Your task to perform on an android device: Empty the shopping cart on ebay. Add bose soundsport free to the cart on ebay Image 0: 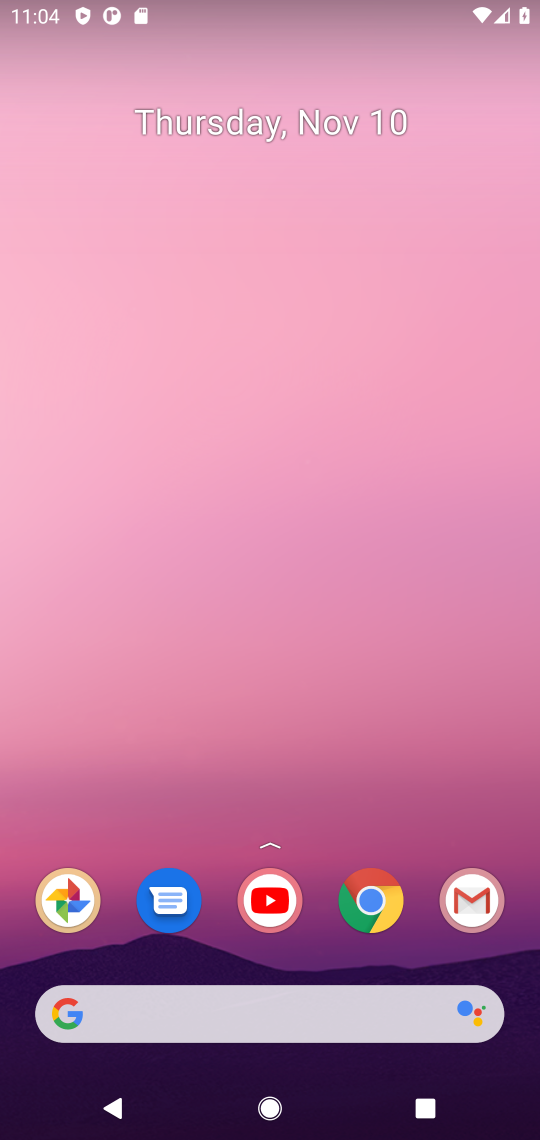
Step 0: click (370, 899)
Your task to perform on an android device: Empty the shopping cart on ebay. Add bose soundsport free to the cart on ebay Image 1: 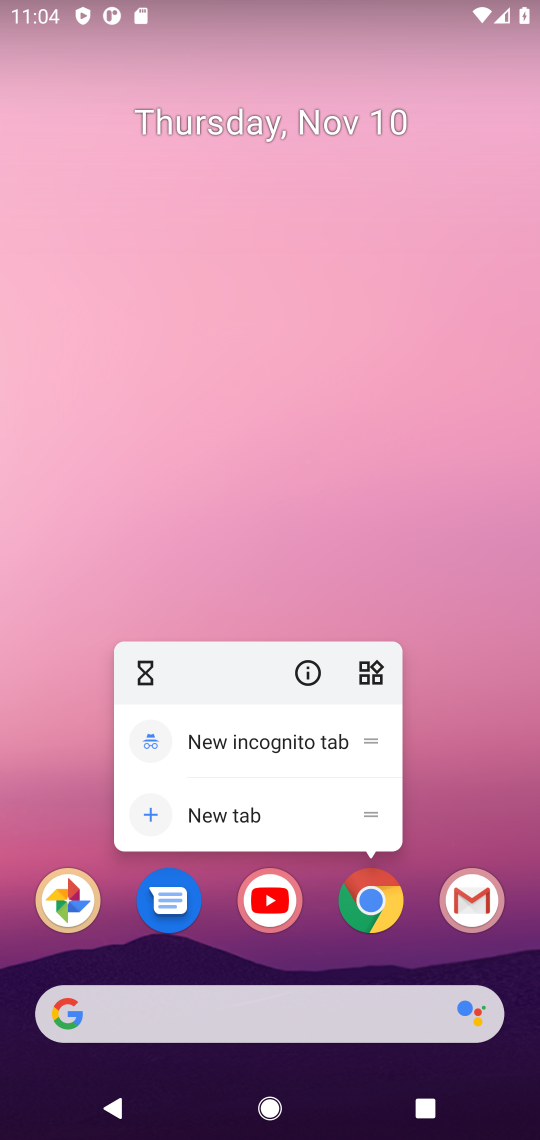
Step 1: click (371, 898)
Your task to perform on an android device: Empty the shopping cart on ebay. Add bose soundsport free to the cart on ebay Image 2: 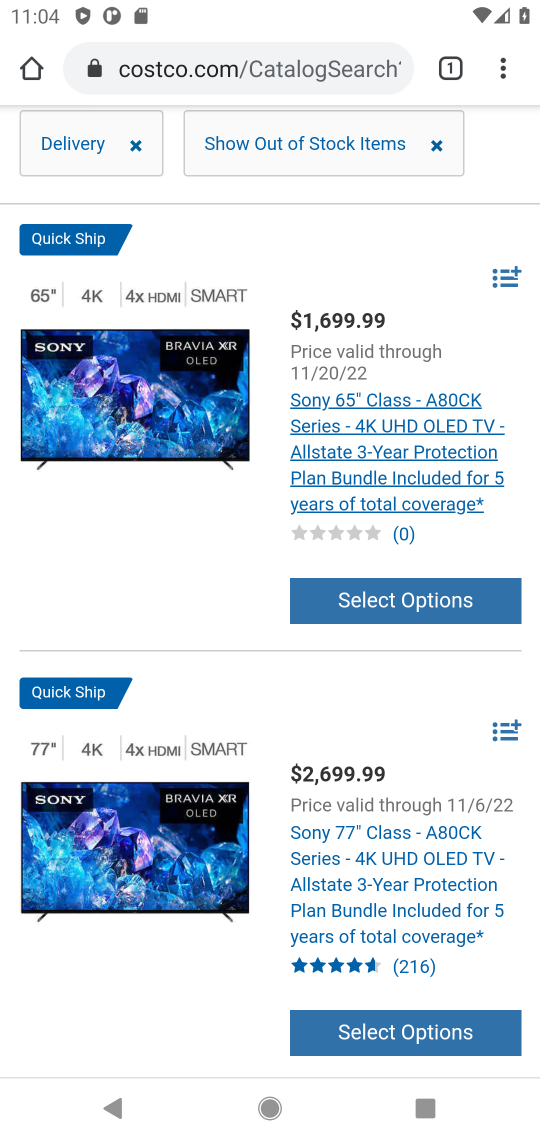
Step 2: click (327, 61)
Your task to perform on an android device: Empty the shopping cart on ebay. Add bose soundsport free to the cart on ebay Image 3: 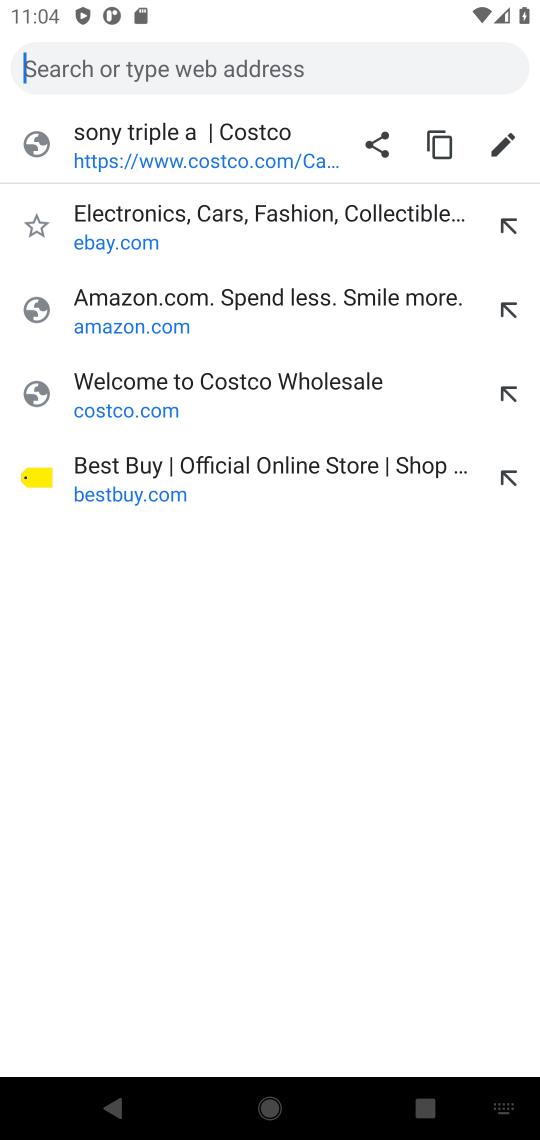
Step 3: click (117, 237)
Your task to perform on an android device: Empty the shopping cart on ebay. Add bose soundsport free to the cart on ebay Image 4: 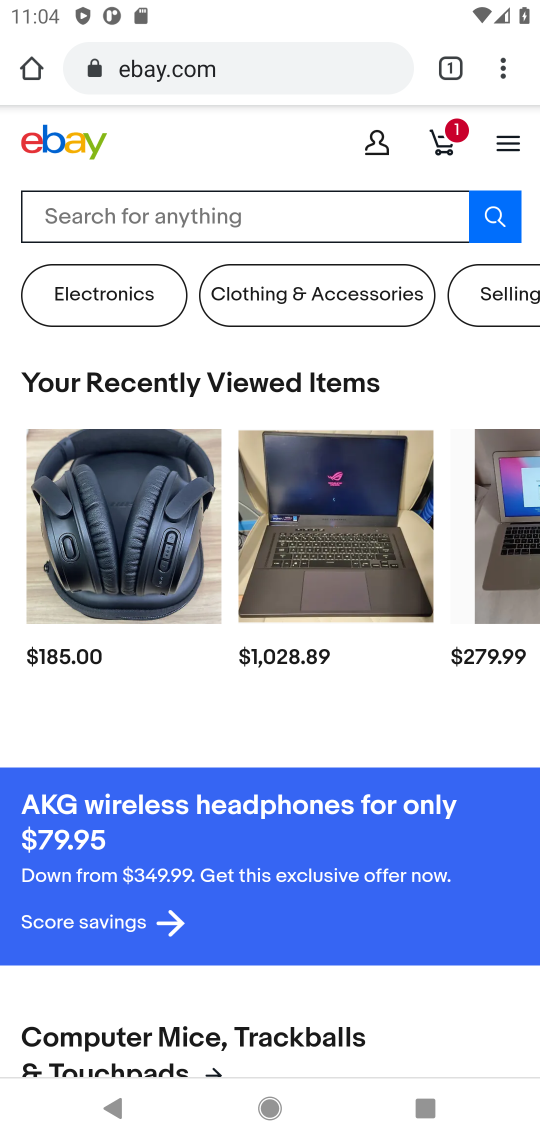
Step 4: click (152, 215)
Your task to perform on an android device: Empty the shopping cart on ebay. Add bose soundsport free to the cart on ebay Image 5: 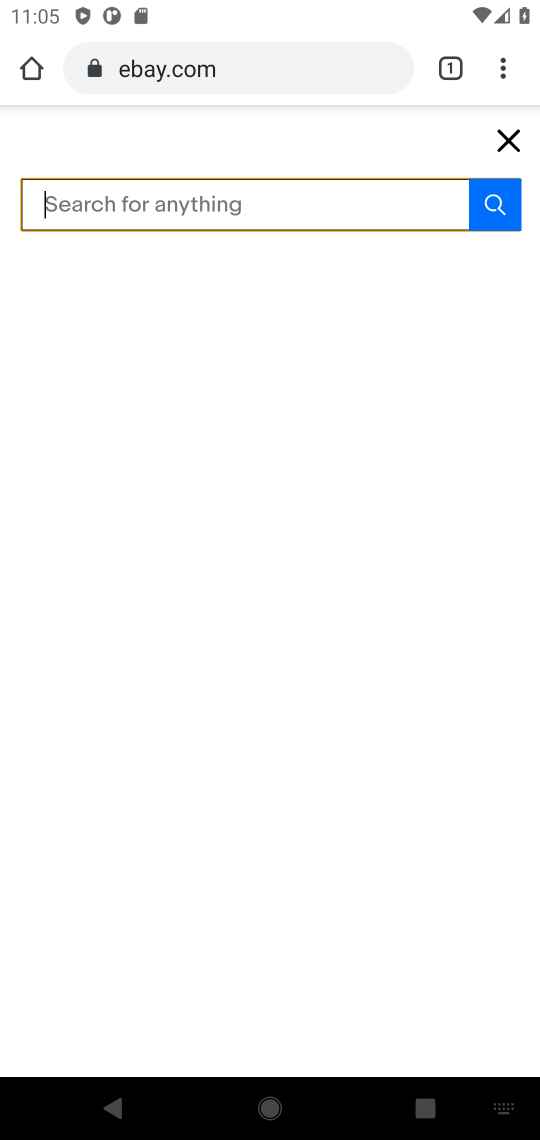
Step 5: type "bose soundsport free"
Your task to perform on an android device: Empty the shopping cart on ebay. Add bose soundsport free to the cart on ebay Image 6: 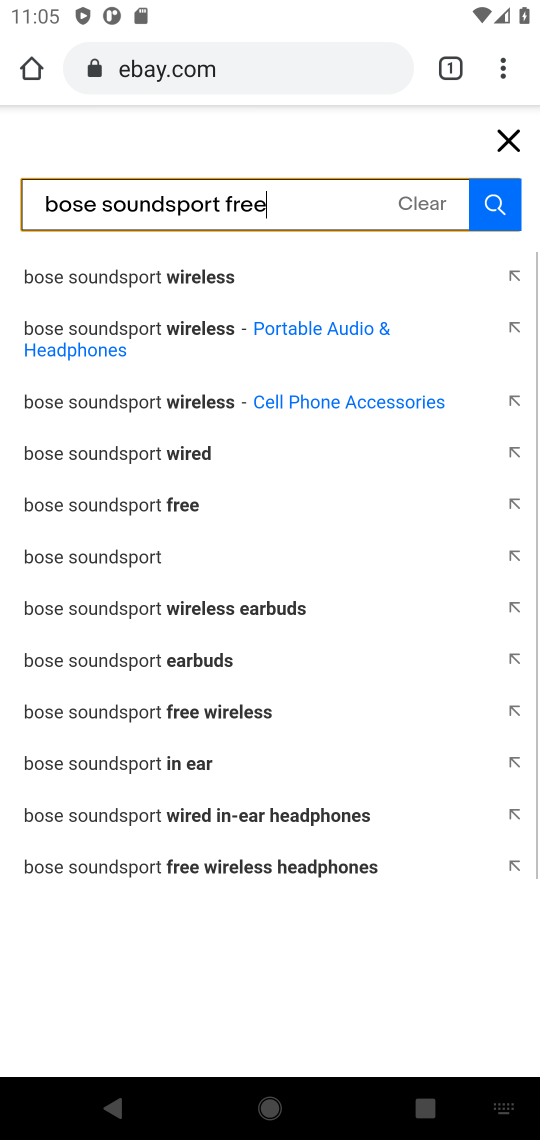
Step 6: press enter
Your task to perform on an android device: Empty the shopping cart on ebay. Add bose soundsport free to the cart on ebay Image 7: 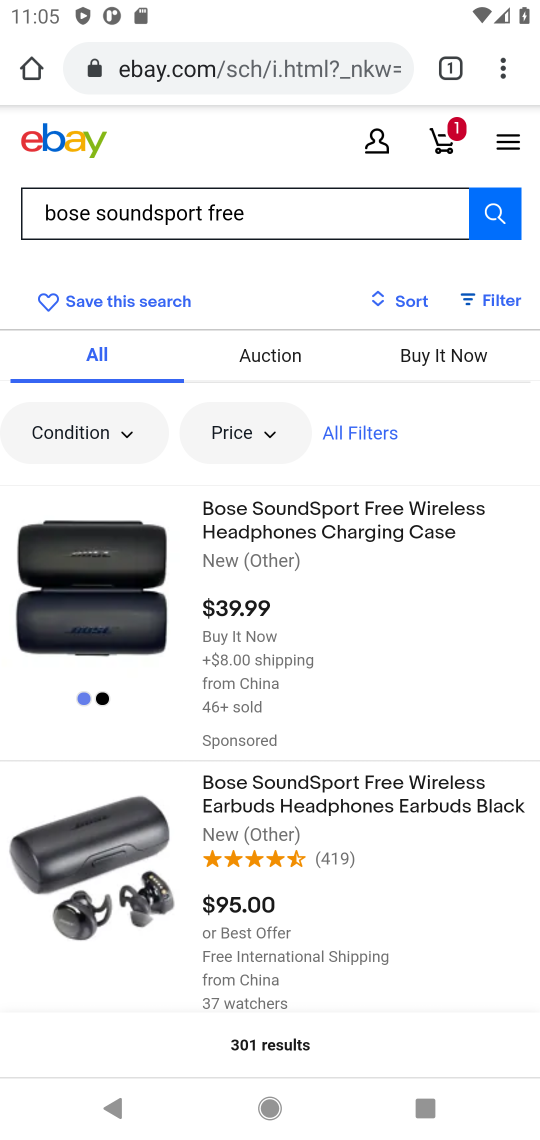
Step 7: click (305, 548)
Your task to perform on an android device: Empty the shopping cart on ebay. Add bose soundsport free to the cart on ebay Image 8: 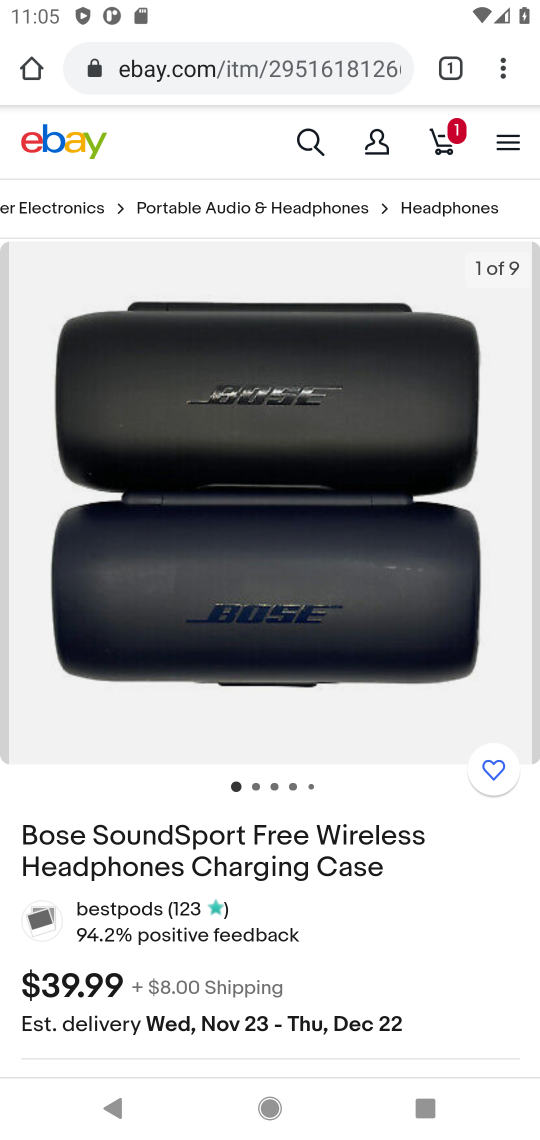
Step 8: drag from (373, 981) to (533, 257)
Your task to perform on an android device: Empty the shopping cart on ebay. Add bose soundsport free to the cart on ebay Image 9: 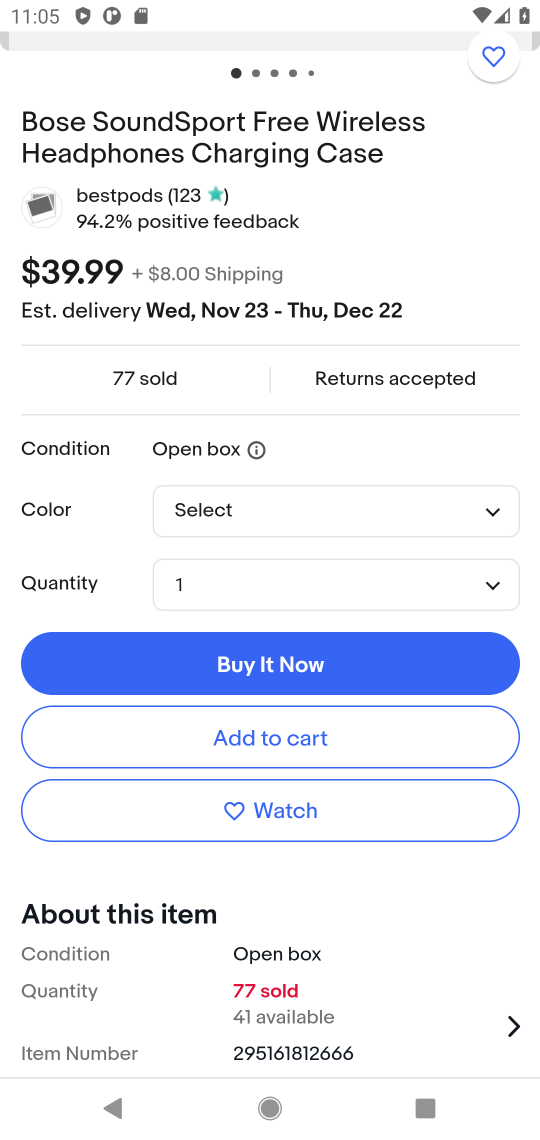
Step 9: click (262, 730)
Your task to perform on an android device: Empty the shopping cart on ebay. Add bose soundsport free to the cart on ebay Image 10: 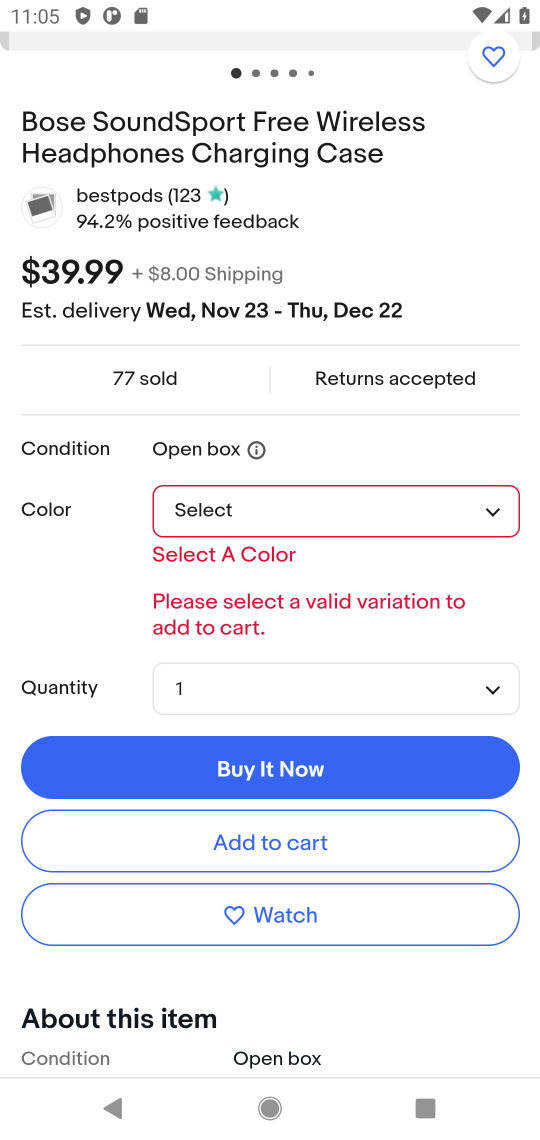
Step 10: click (485, 504)
Your task to perform on an android device: Empty the shopping cart on ebay. Add bose soundsport free to the cart on ebay Image 11: 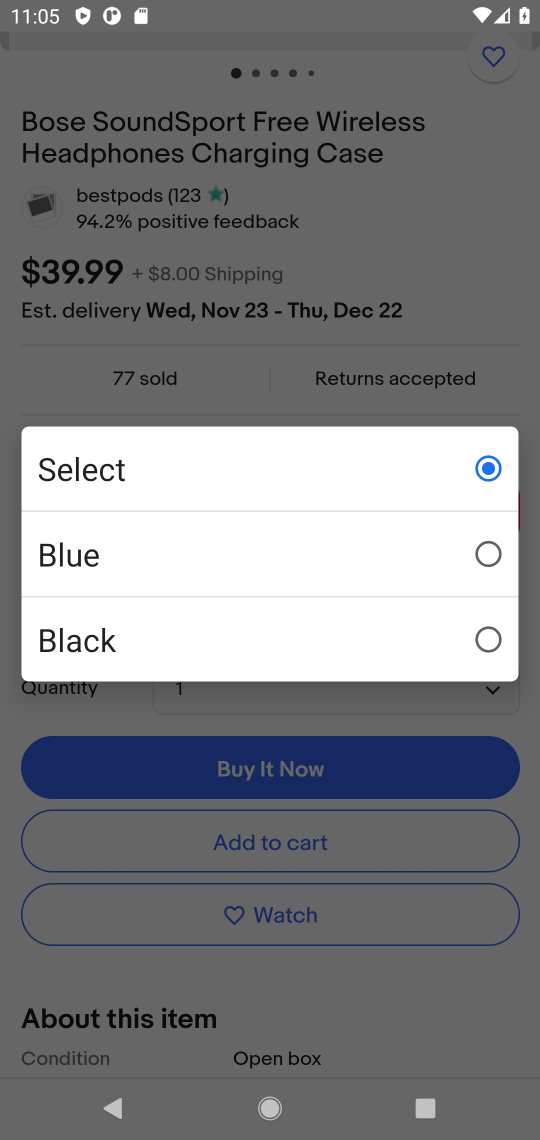
Step 11: click (486, 545)
Your task to perform on an android device: Empty the shopping cart on ebay. Add bose soundsport free to the cart on ebay Image 12: 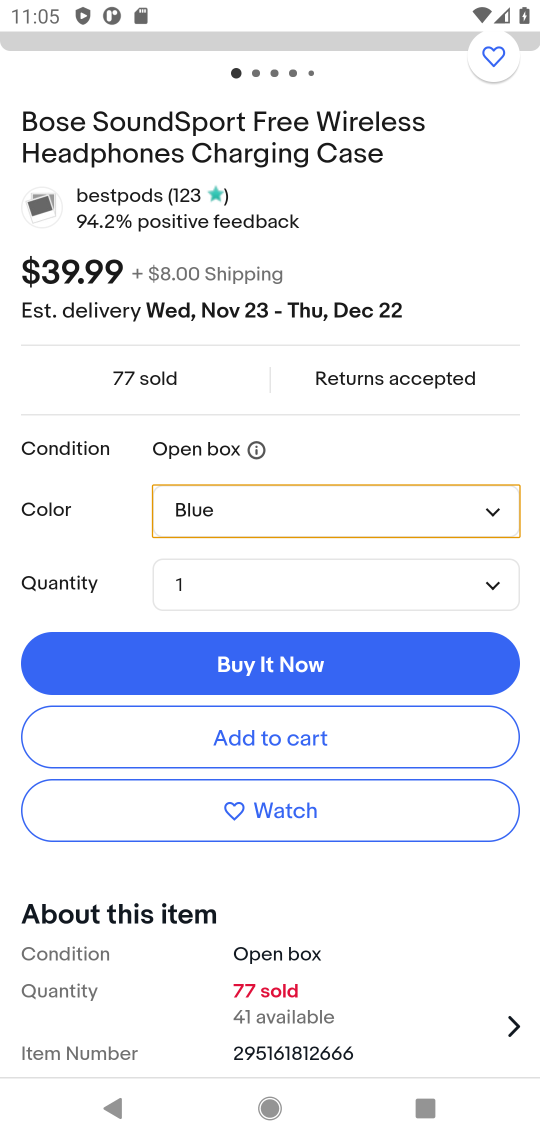
Step 12: click (261, 734)
Your task to perform on an android device: Empty the shopping cart on ebay. Add bose soundsport free to the cart on ebay Image 13: 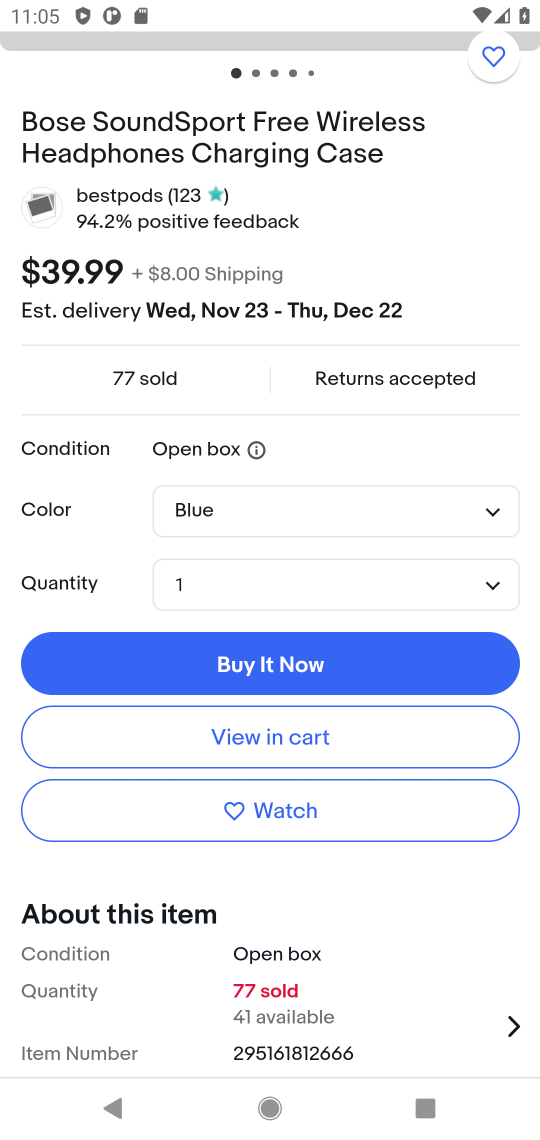
Step 13: click (284, 727)
Your task to perform on an android device: Empty the shopping cart on ebay. Add bose soundsport free to the cart on ebay Image 14: 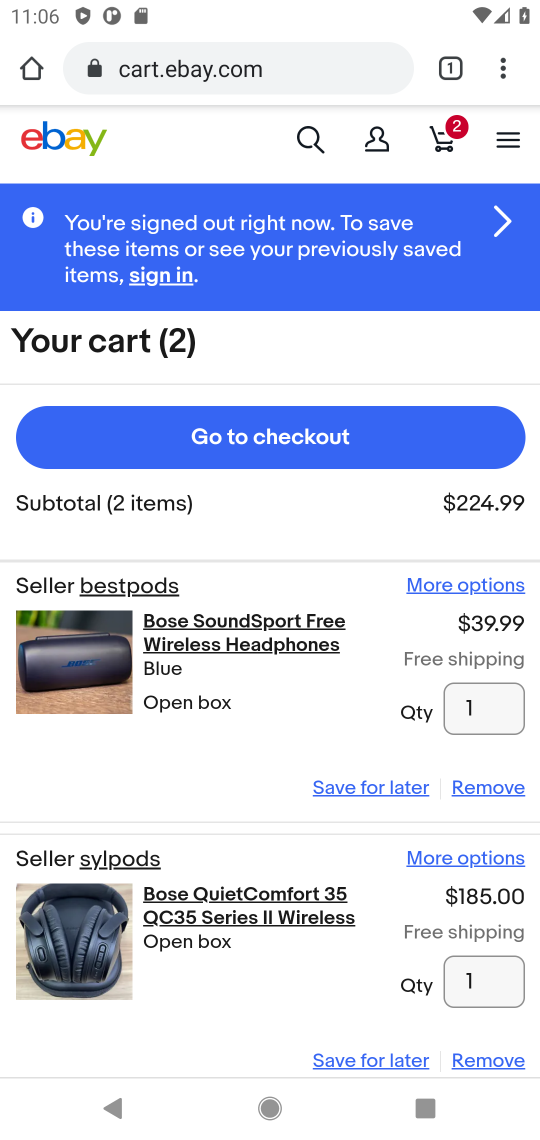
Step 14: drag from (247, 958) to (361, 614)
Your task to perform on an android device: Empty the shopping cart on ebay. Add bose soundsport free to the cart on ebay Image 15: 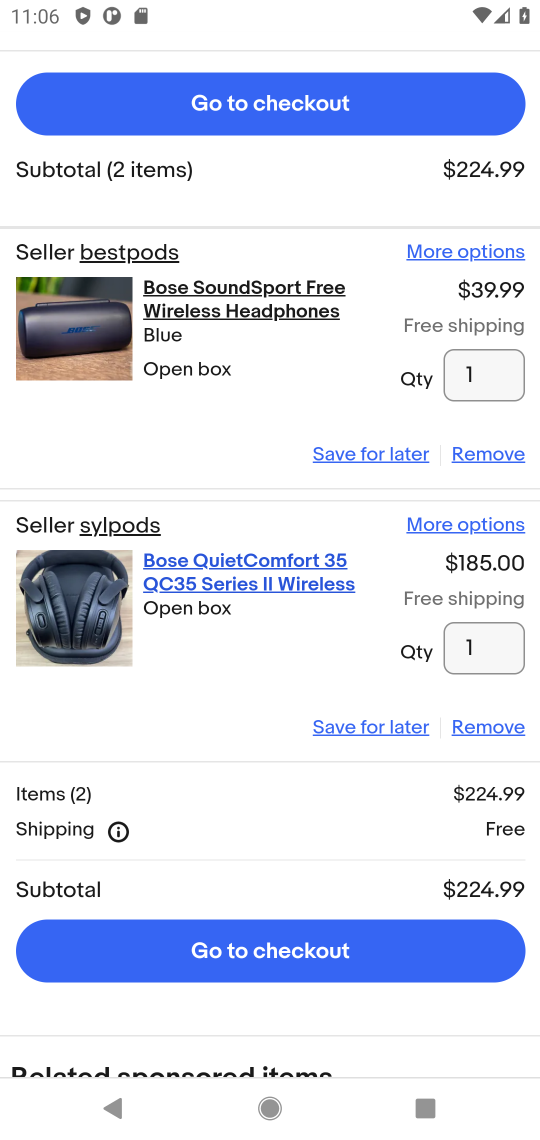
Step 15: click (492, 724)
Your task to perform on an android device: Empty the shopping cart on ebay. Add bose soundsport free to the cart on ebay Image 16: 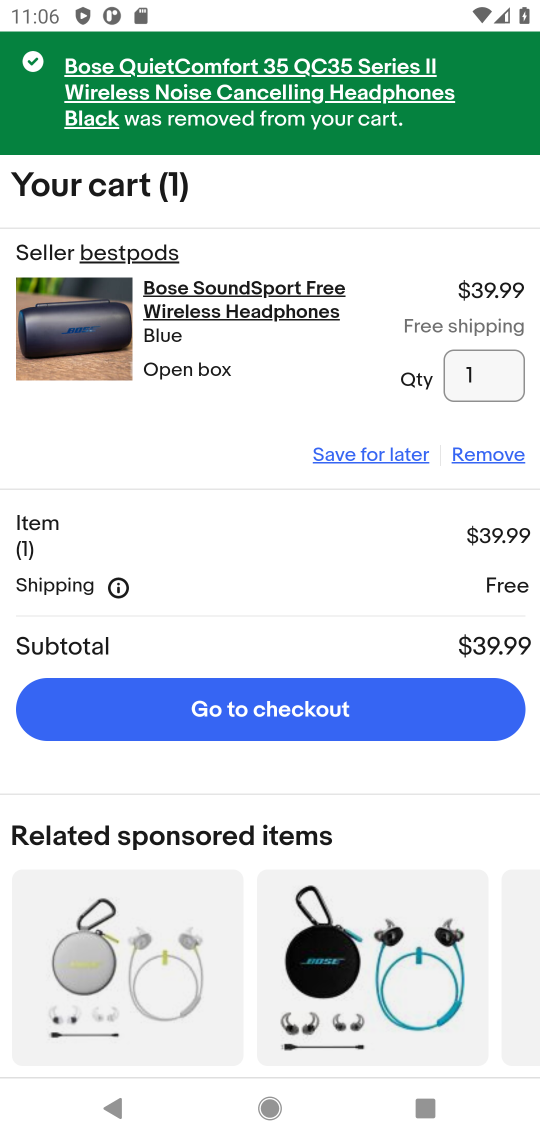
Step 16: task complete